Your task to perform on an android device: find photos in the google photos app Image 0: 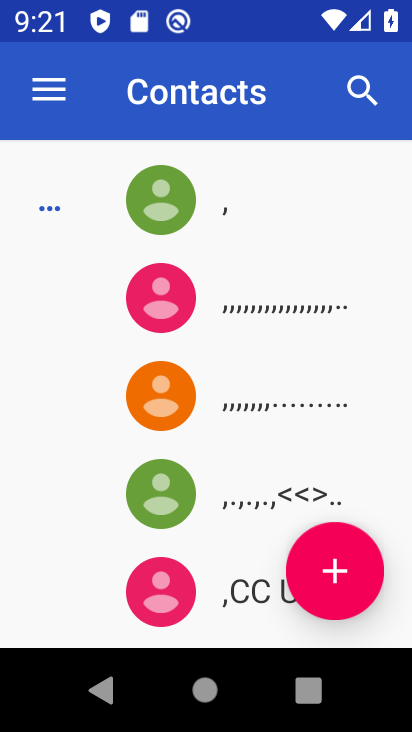
Step 0: press home button
Your task to perform on an android device: find photos in the google photos app Image 1: 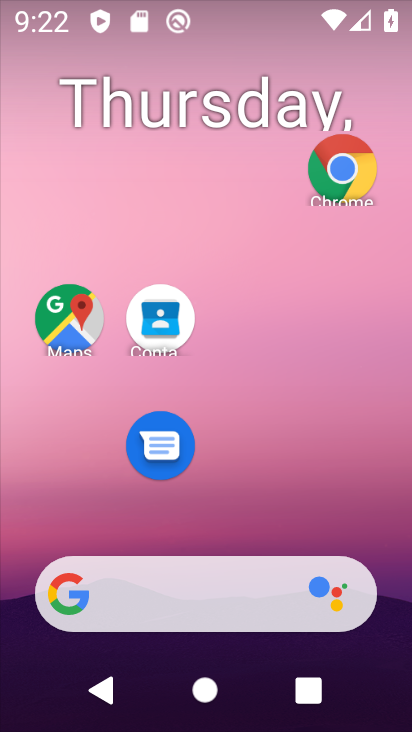
Step 1: drag from (201, 644) to (258, 253)
Your task to perform on an android device: find photos in the google photos app Image 2: 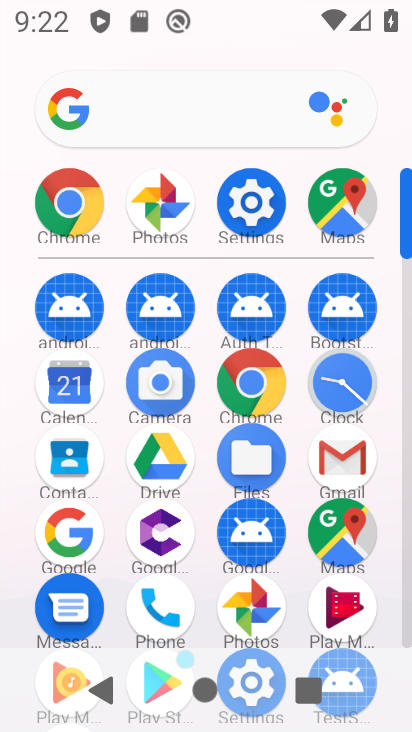
Step 2: click (250, 587)
Your task to perform on an android device: find photos in the google photos app Image 3: 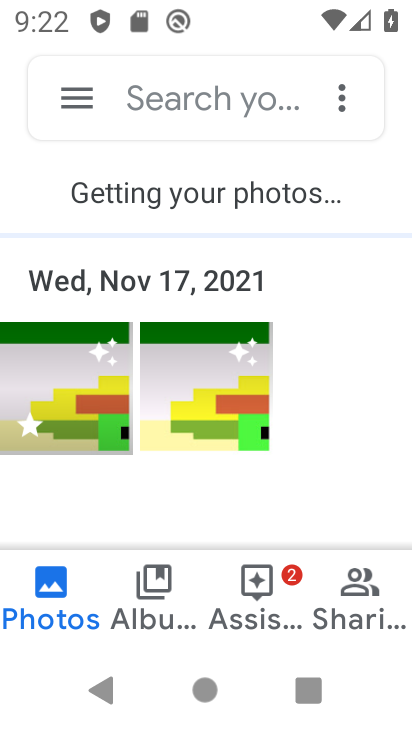
Step 3: task complete